Your task to perform on an android device: Open accessibility settings Image 0: 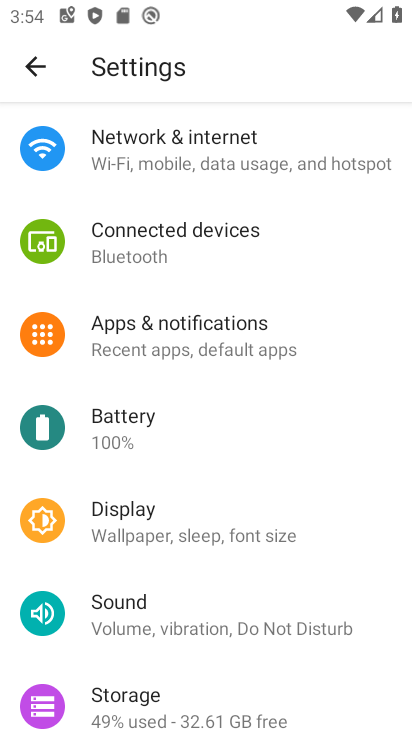
Step 0: drag from (282, 601) to (242, 129)
Your task to perform on an android device: Open accessibility settings Image 1: 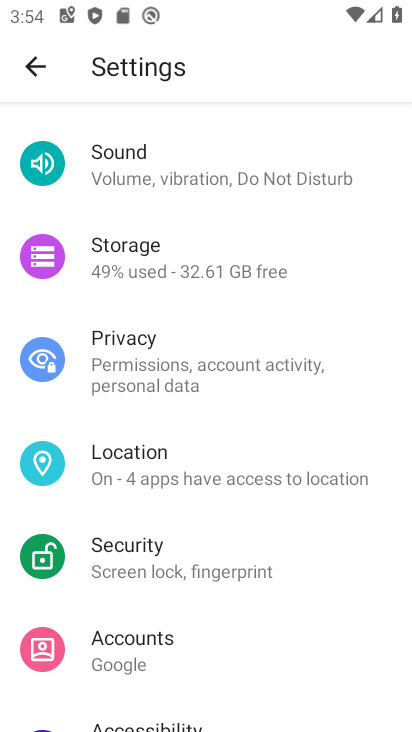
Step 1: drag from (266, 544) to (232, 191)
Your task to perform on an android device: Open accessibility settings Image 2: 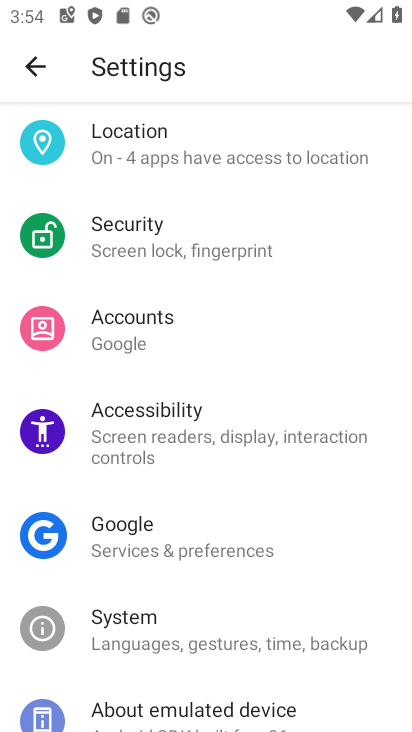
Step 2: click (212, 429)
Your task to perform on an android device: Open accessibility settings Image 3: 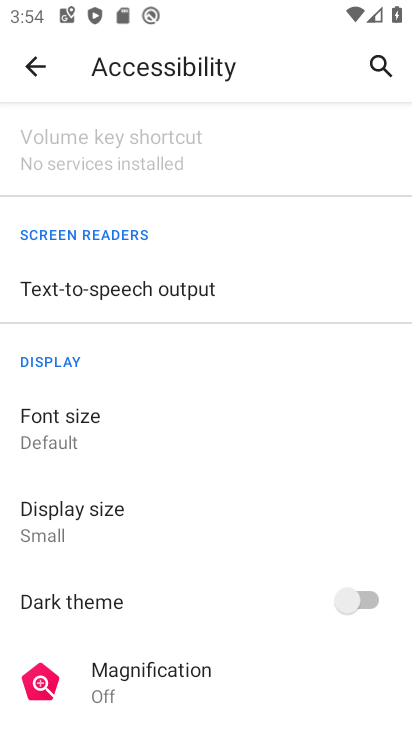
Step 3: task complete